Your task to perform on an android device: Open settings on Google Maps Image 0: 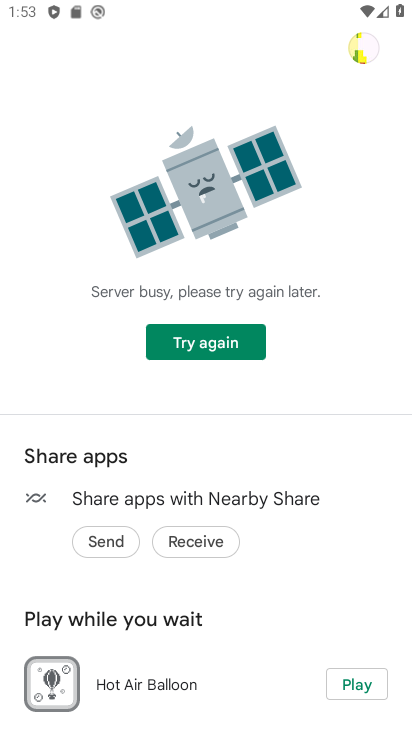
Step 0: press home button
Your task to perform on an android device: Open settings on Google Maps Image 1: 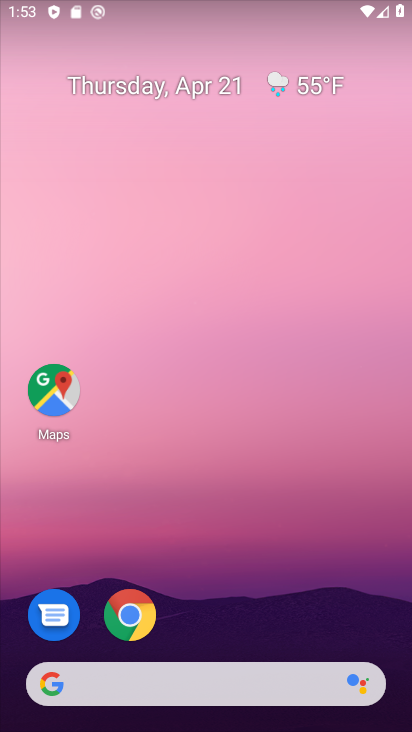
Step 1: drag from (195, 609) to (219, 390)
Your task to perform on an android device: Open settings on Google Maps Image 2: 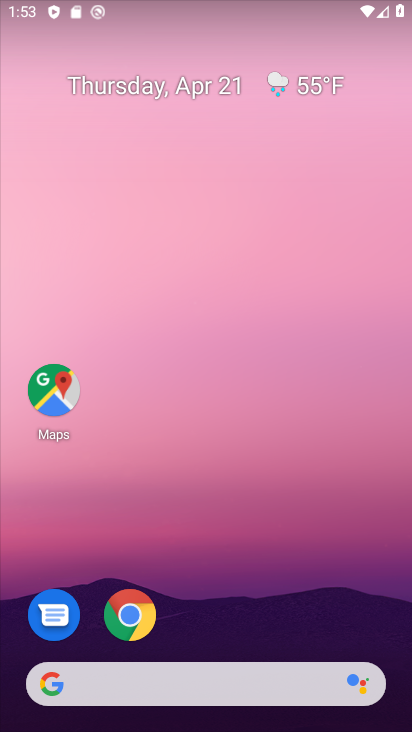
Step 2: drag from (213, 666) to (246, 262)
Your task to perform on an android device: Open settings on Google Maps Image 3: 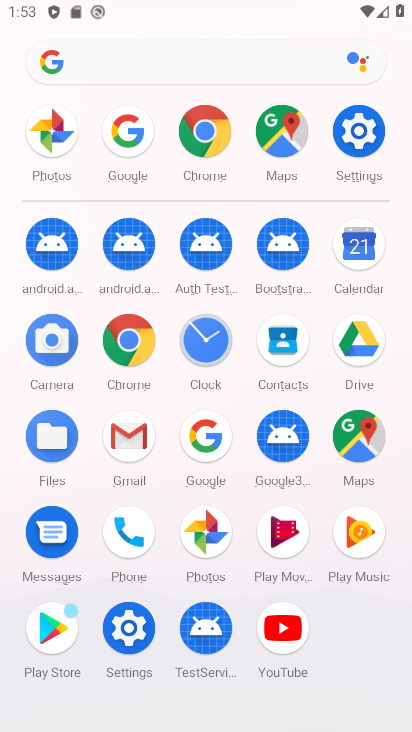
Step 3: click (358, 432)
Your task to perform on an android device: Open settings on Google Maps Image 4: 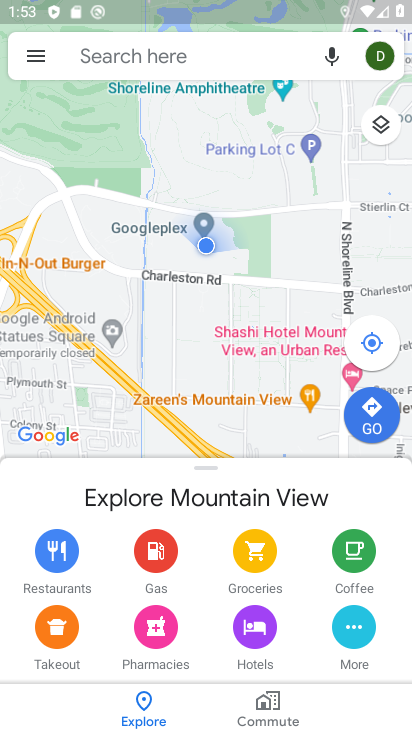
Step 4: click (30, 52)
Your task to perform on an android device: Open settings on Google Maps Image 5: 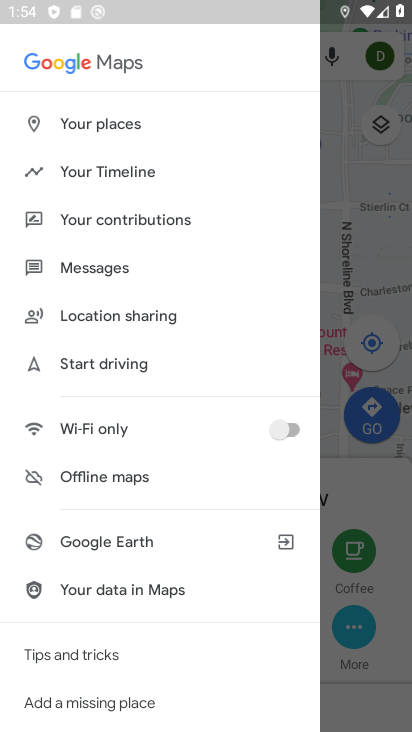
Step 5: drag from (108, 712) to (158, 403)
Your task to perform on an android device: Open settings on Google Maps Image 6: 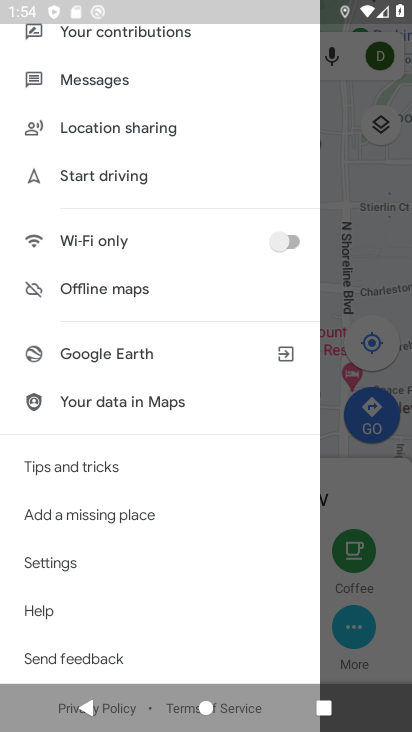
Step 6: click (57, 564)
Your task to perform on an android device: Open settings on Google Maps Image 7: 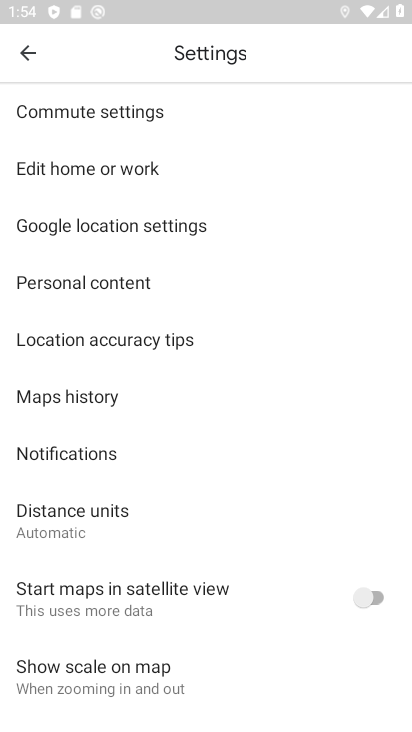
Step 7: task complete